Your task to perform on an android device: add a contact Image 0: 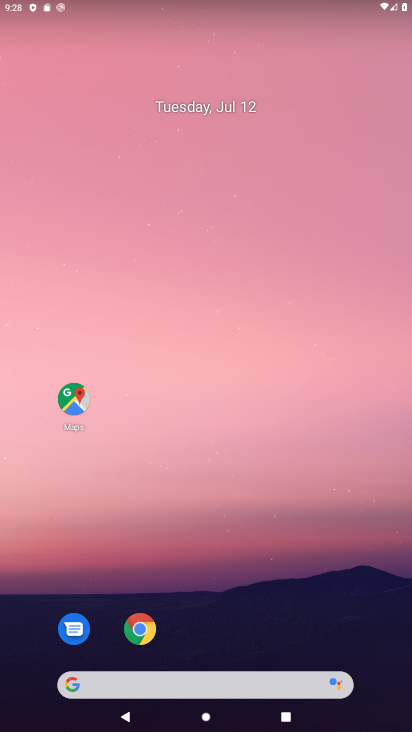
Step 0: drag from (250, 604) to (236, 83)
Your task to perform on an android device: add a contact Image 1: 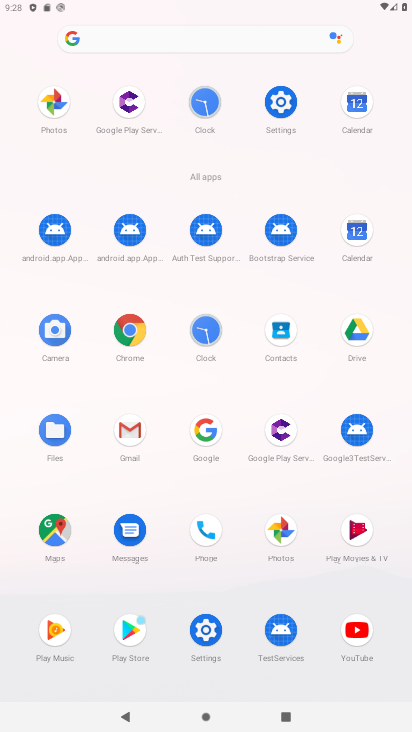
Step 1: click (285, 329)
Your task to perform on an android device: add a contact Image 2: 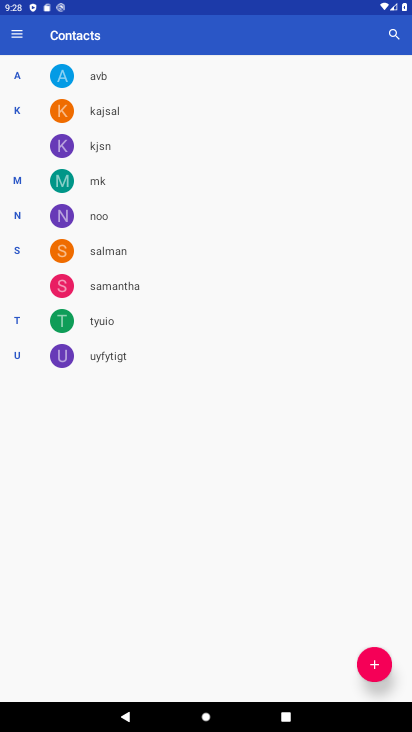
Step 2: click (376, 656)
Your task to perform on an android device: add a contact Image 3: 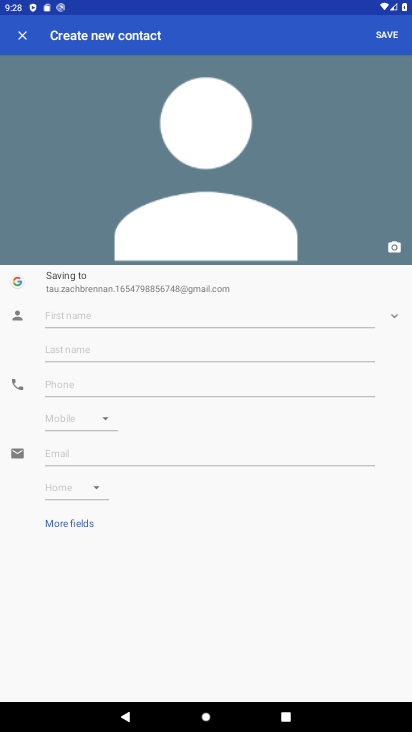
Step 3: click (237, 318)
Your task to perform on an android device: add a contact Image 4: 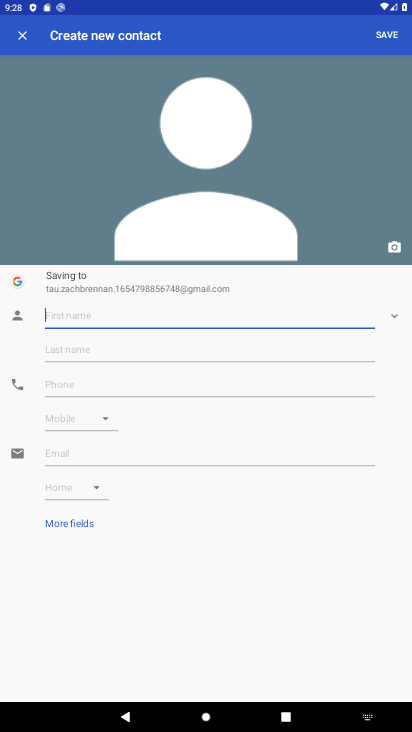
Step 4: type "ck"
Your task to perform on an android device: add a contact Image 5: 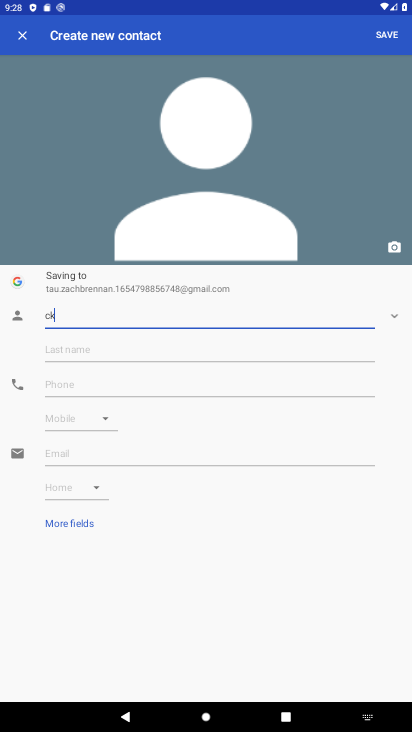
Step 5: click (64, 396)
Your task to perform on an android device: add a contact Image 6: 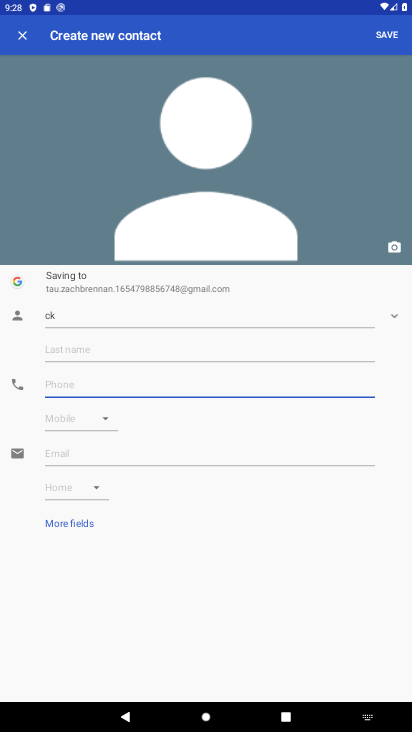
Step 6: type "0987654321"
Your task to perform on an android device: add a contact Image 7: 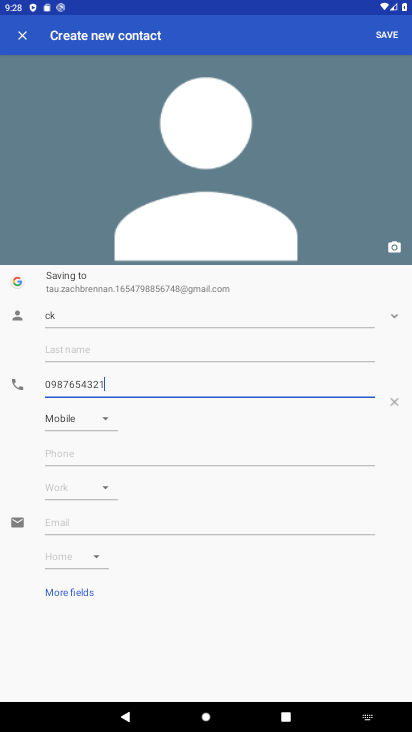
Step 7: click (388, 33)
Your task to perform on an android device: add a contact Image 8: 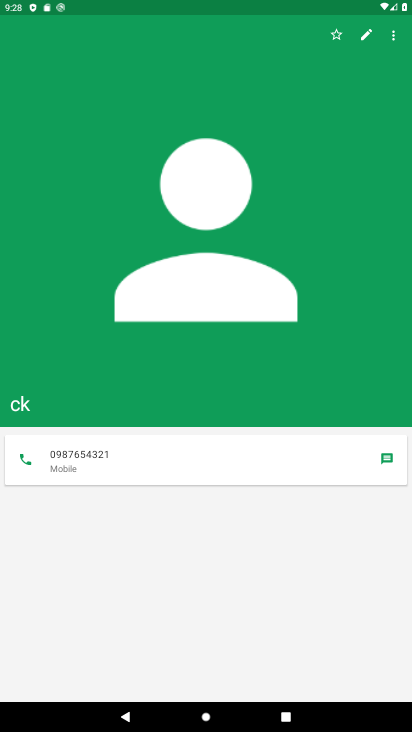
Step 8: task complete